Your task to perform on an android device: Open Wikipedia Image 0: 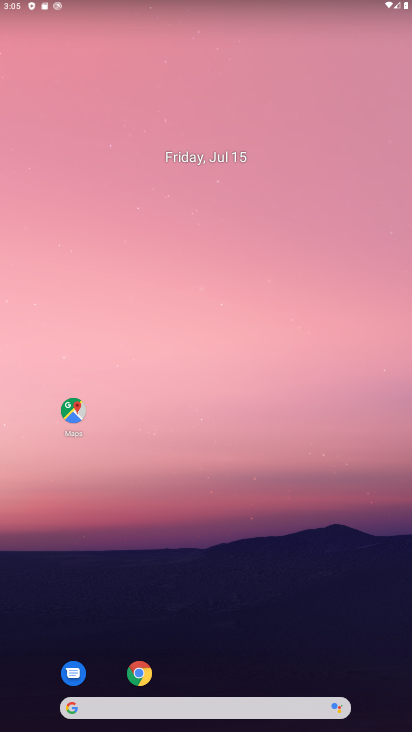
Step 0: click (136, 682)
Your task to perform on an android device: Open Wikipedia Image 1: 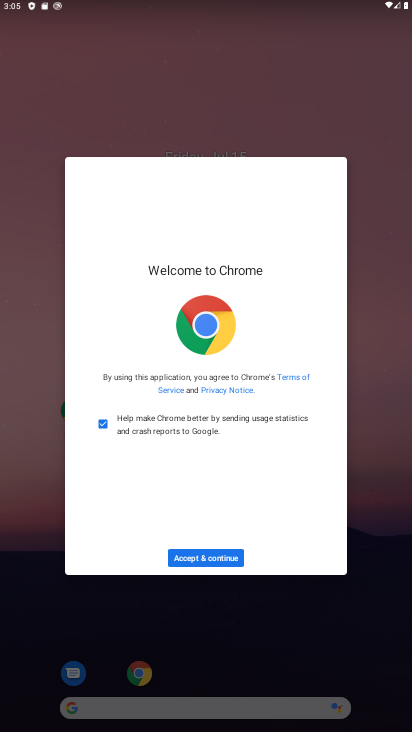
Step 1: click (233, 561)
Your task to perform on an android device: Open Wikipedia Image 2: 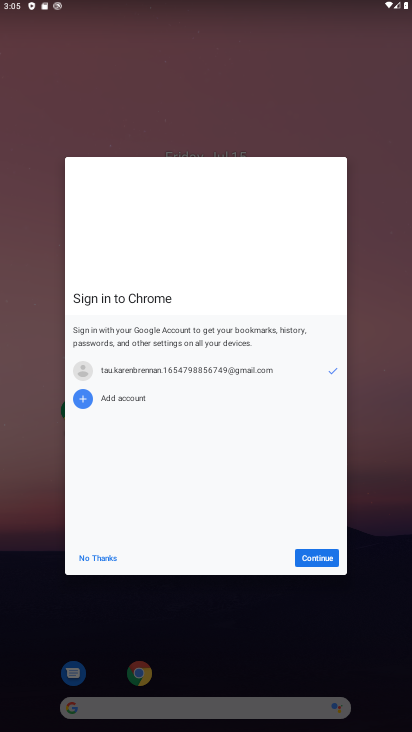
Step 2: click (293, 561)
Your task to perform on an android device: Open Wikipedia Image 3: 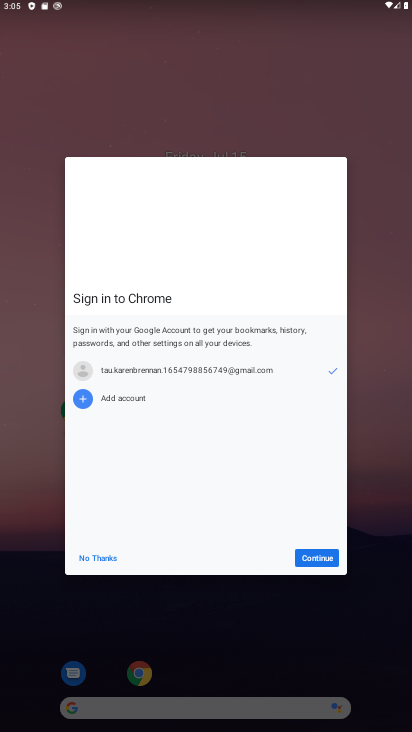
Step 3: click (314, 553)
Your task to perform on an android device: Open Wikipedia Image 4: 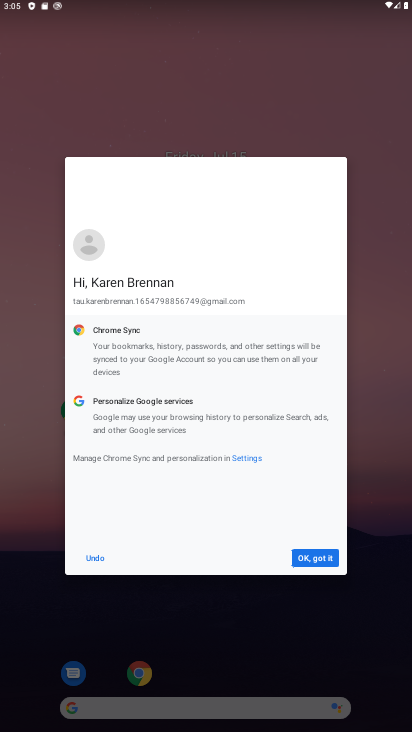
Step 4: click (320, 561)
Your task to perform on an android device: Open Wikipedia Image 5: 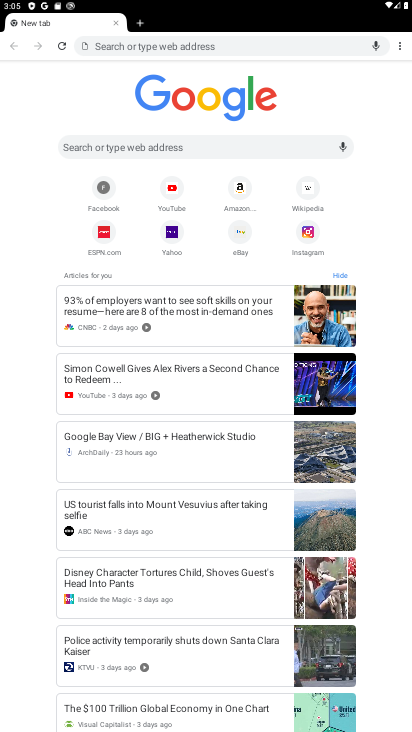
Step 5: click (316, 196)
Your task to perform on an android device: Open Wikipedia Image 6: 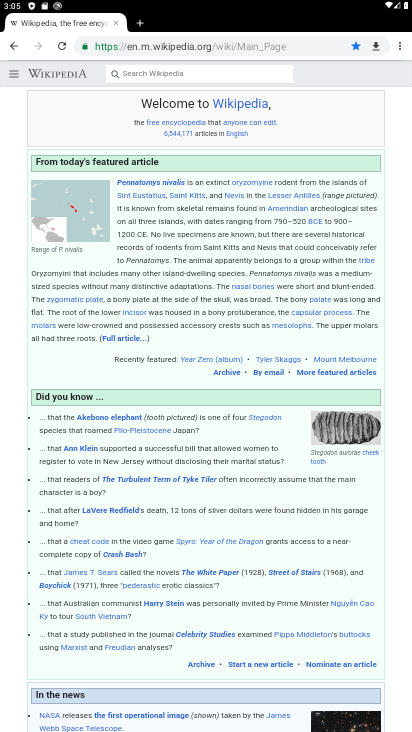
Step 6: task complete